Your task to perform on an android device: Open Google Chrome and click the shortcut for Amazon.com Image 0: 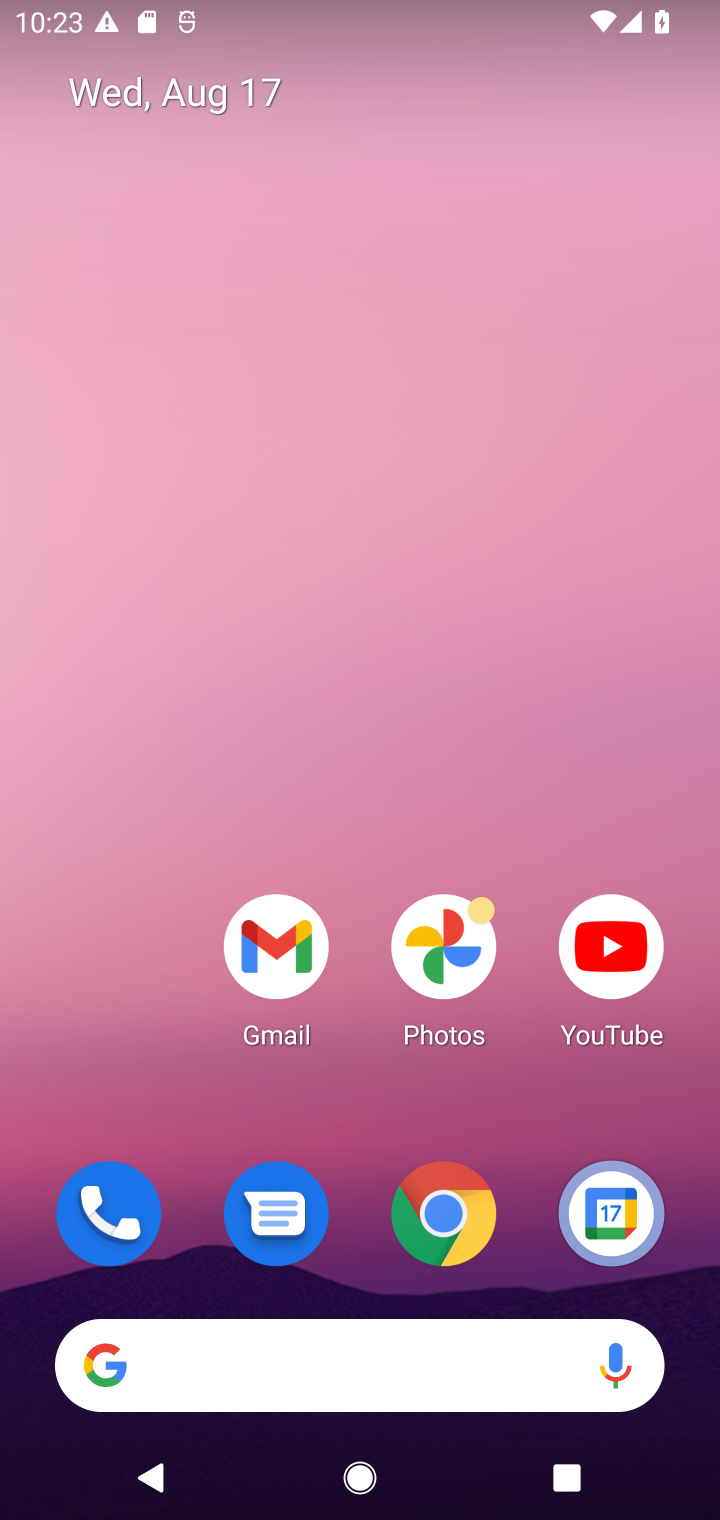
Step 0: drag from (521, 637) to (403, 22)
Your task to perform on an android device: Open Google Chrome and click the shortcut for Amazon.com Image 1: 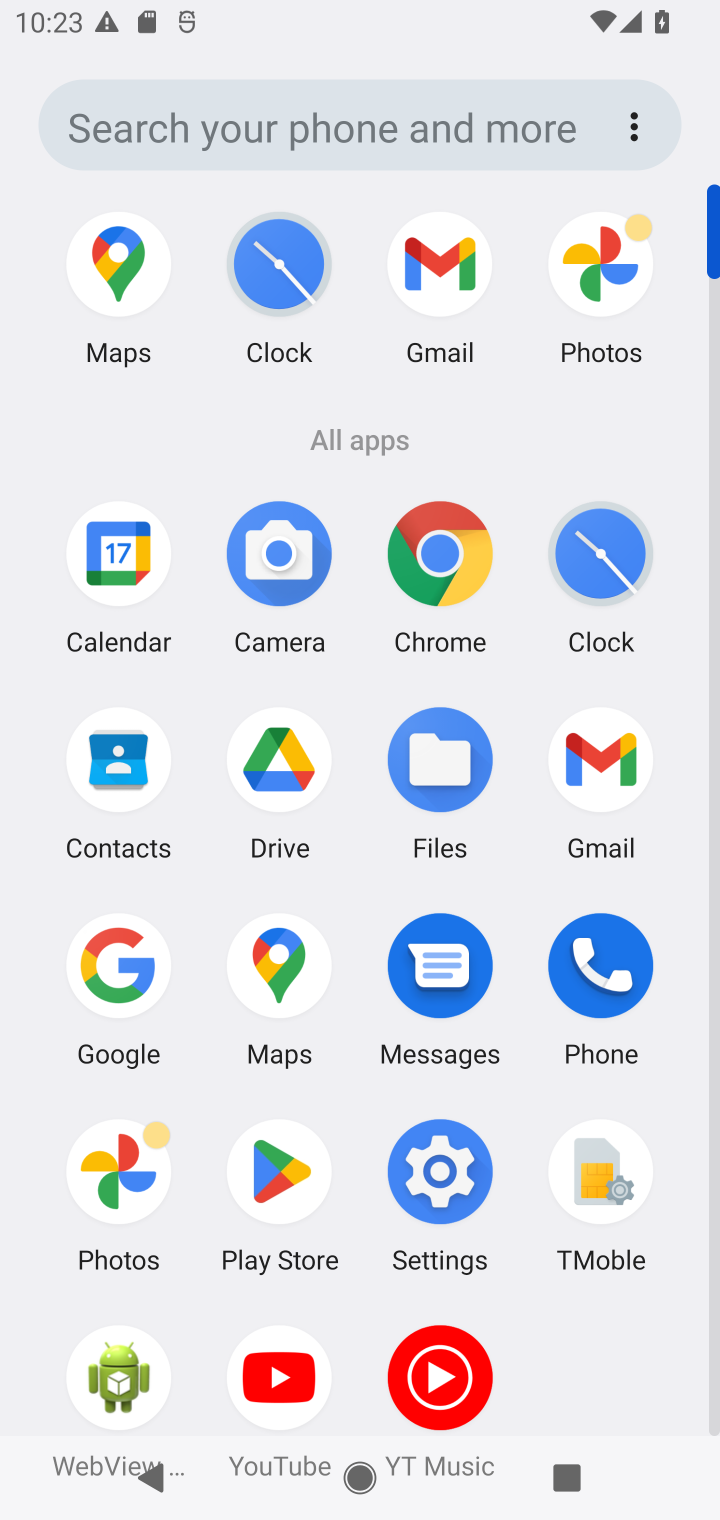
Step 1: click (402, 567)
Your task to perform on an android device: Open Google Chrome and click the shortcut for Amazon.com Image 2: 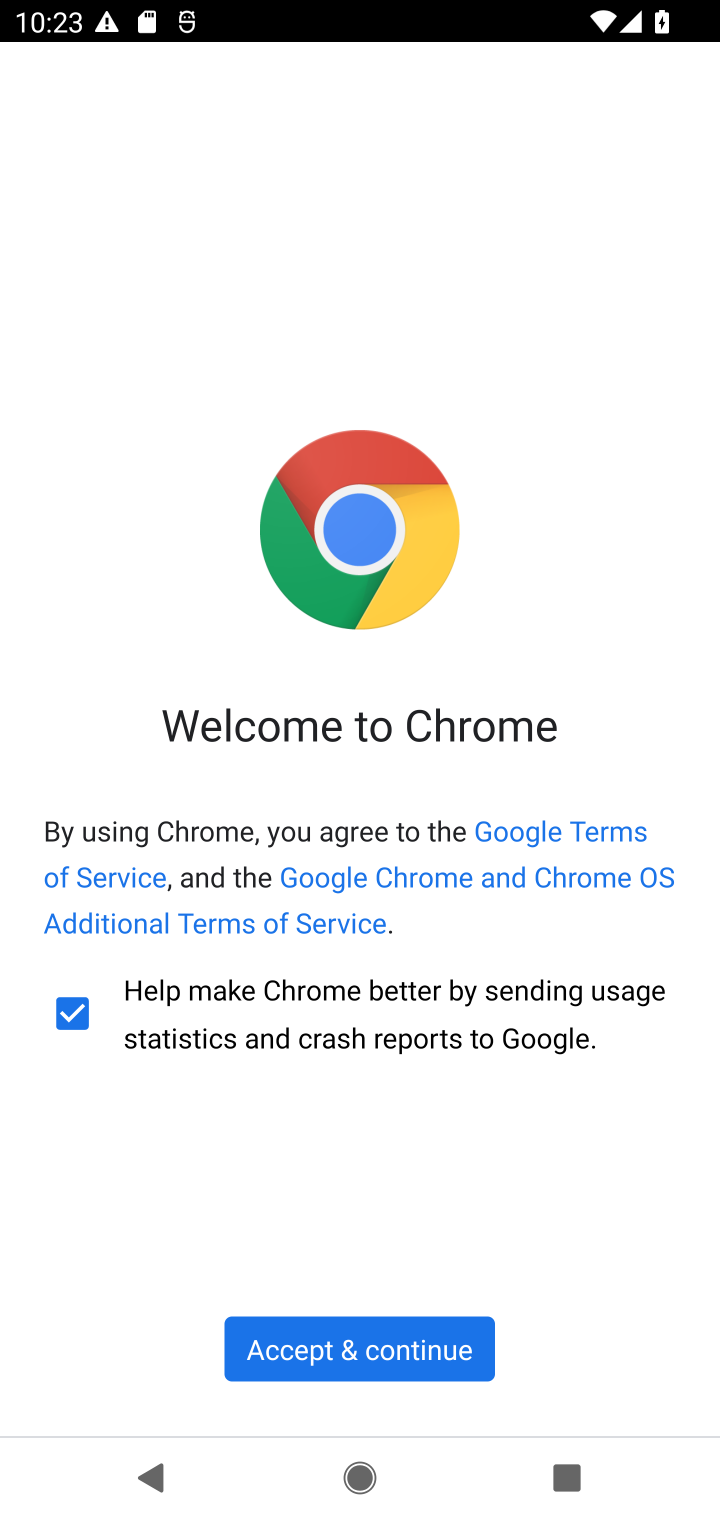
Step 2: click (328, 1353)
Your task to perform on an android device: Open Google Chrome and click the shortcut for Amazon.com Image 3: 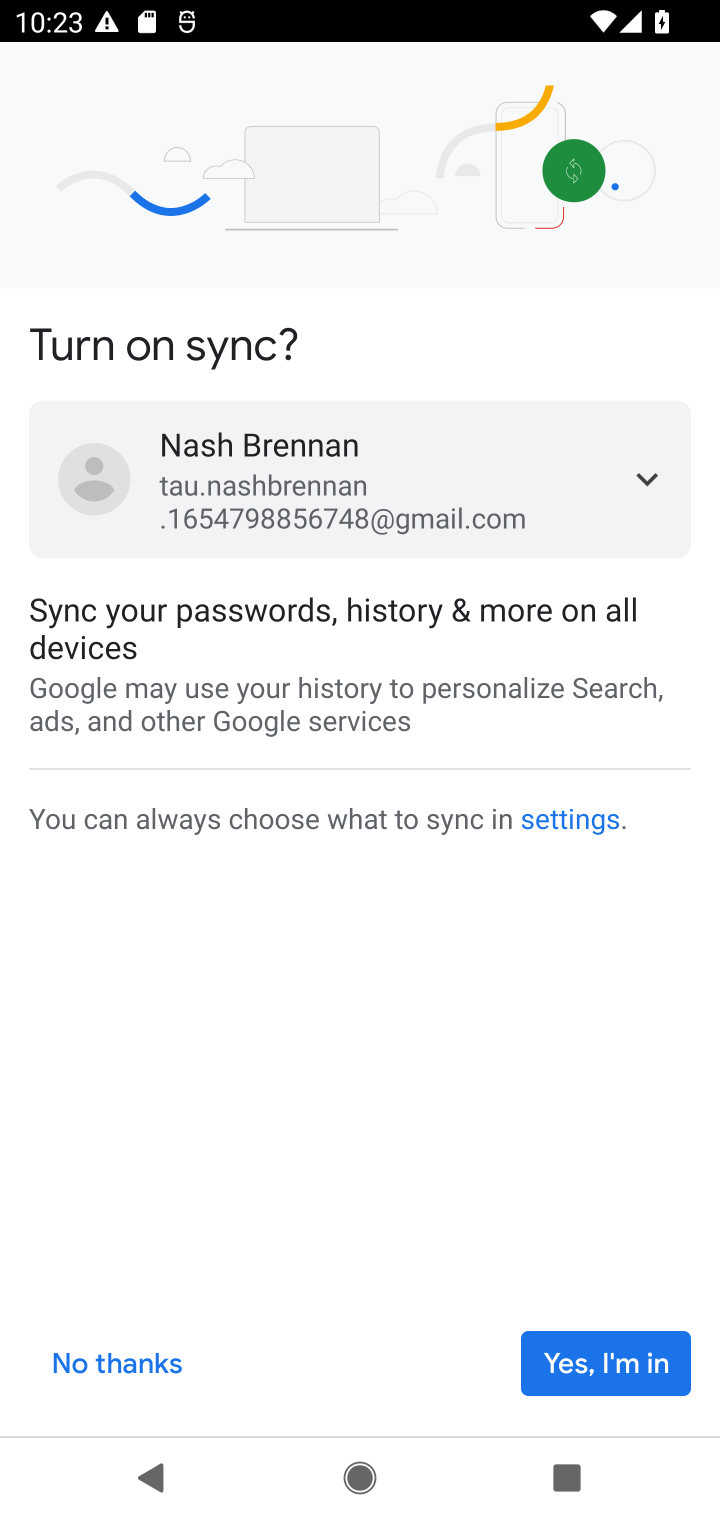
Step 3: click (644, 1378)
Your task to perform on an android device: Open Google Chrome and click the shortcut for Amazon.com Image 4: 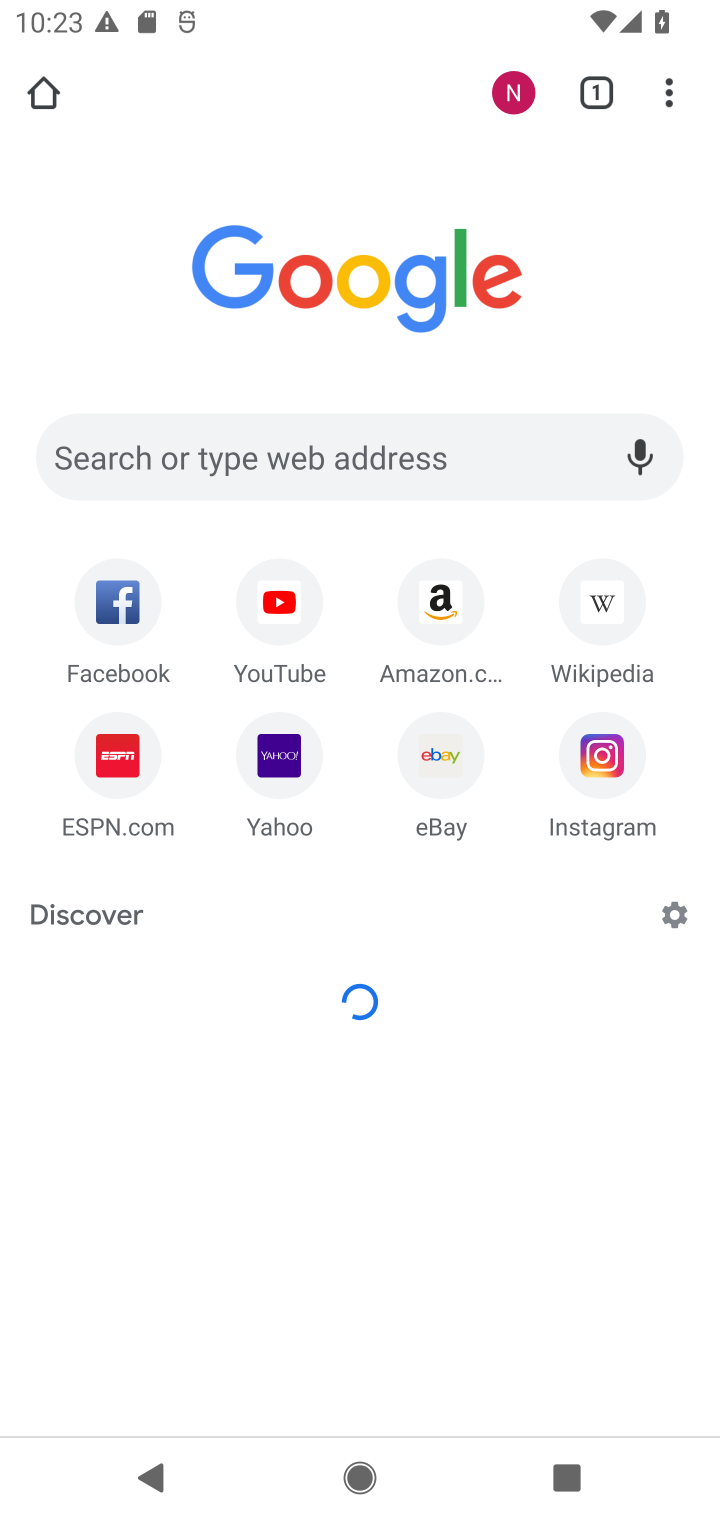
Step 4: click (664, 79)
Your task to perform on an android device: Open Google Chrome and click the shortcut for Amazon.com Image 5: 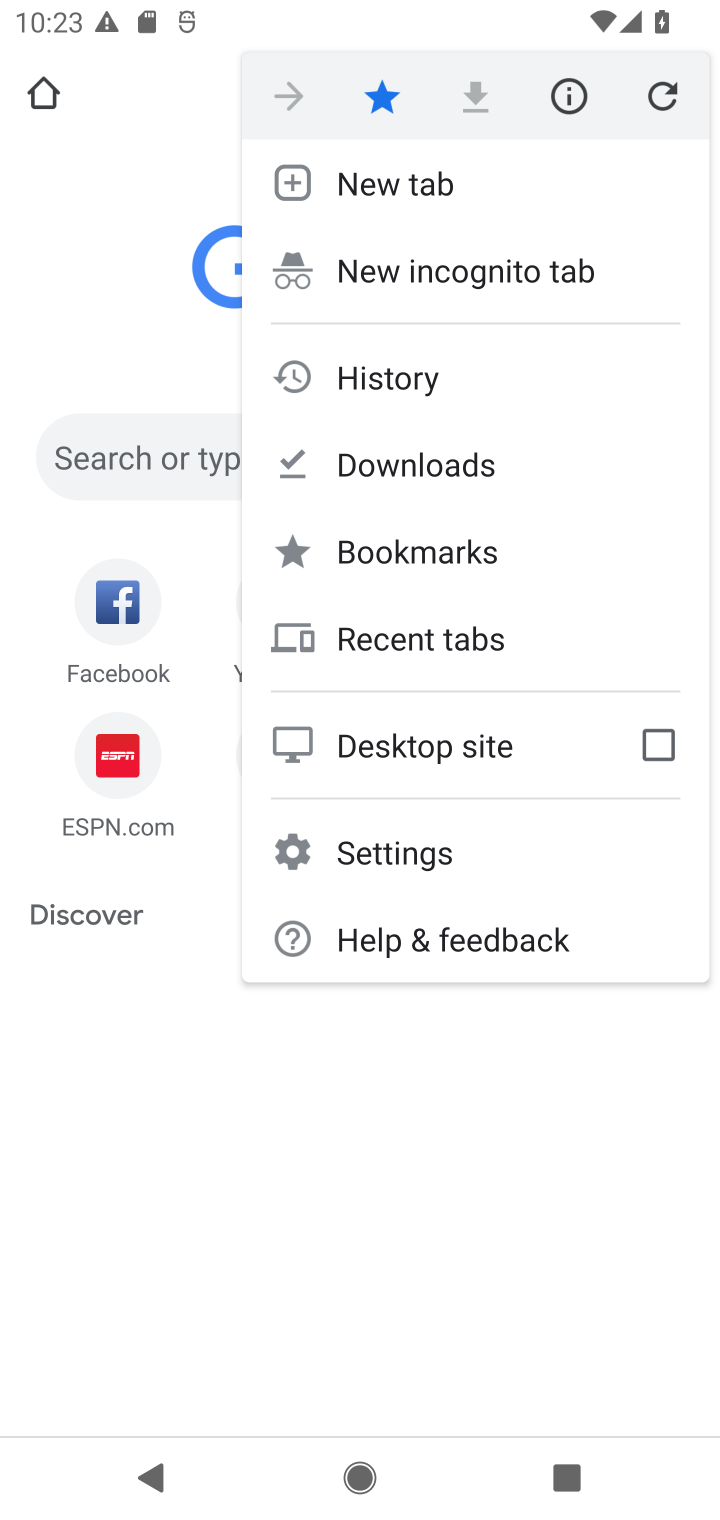
Step 5: click (134, 209)
Your task to perform on an android device: Open Google Chrome and click the shortcut for Amazon.com Image 6: 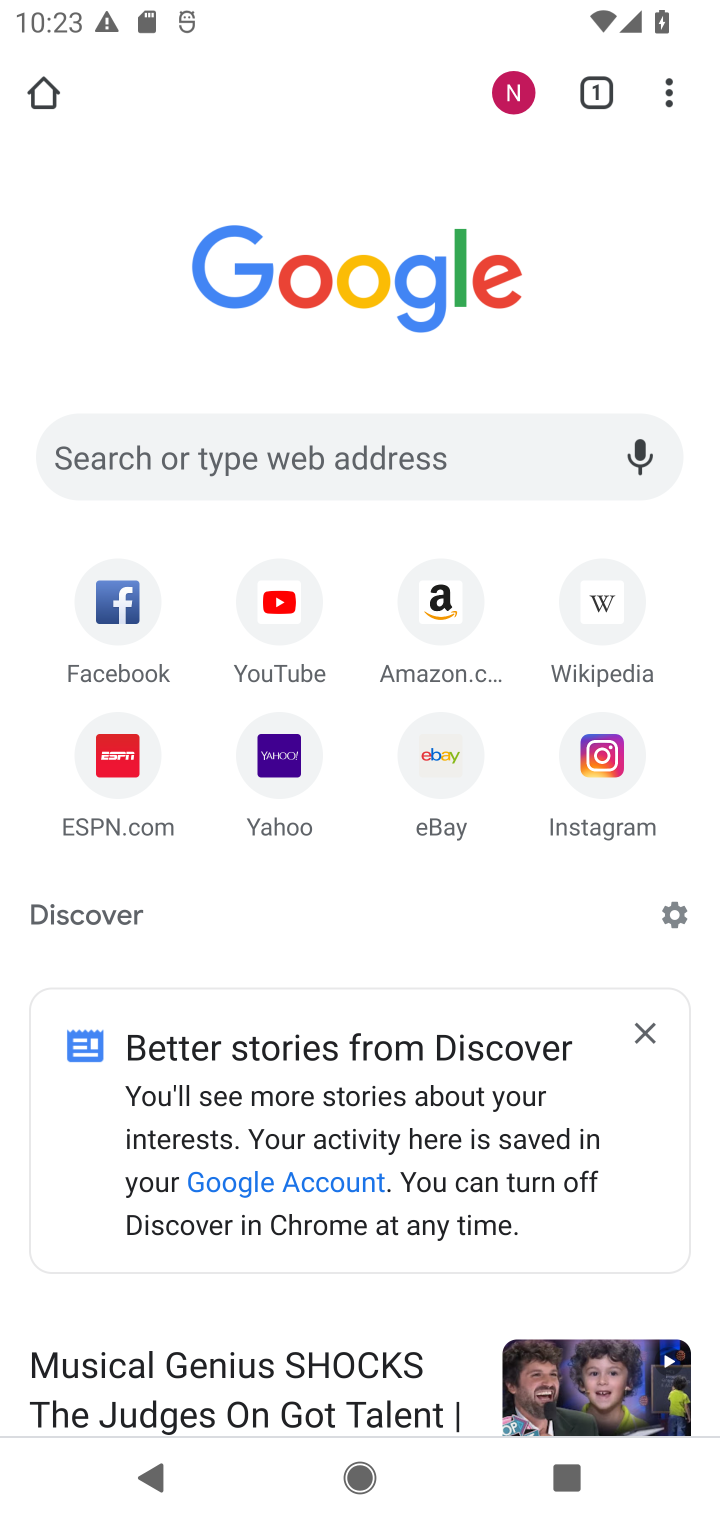
Step 6: click (434, 601)
Your task to perform on an android device: Open Google Chrome and click the shortcut for Amazon.com Image 7: 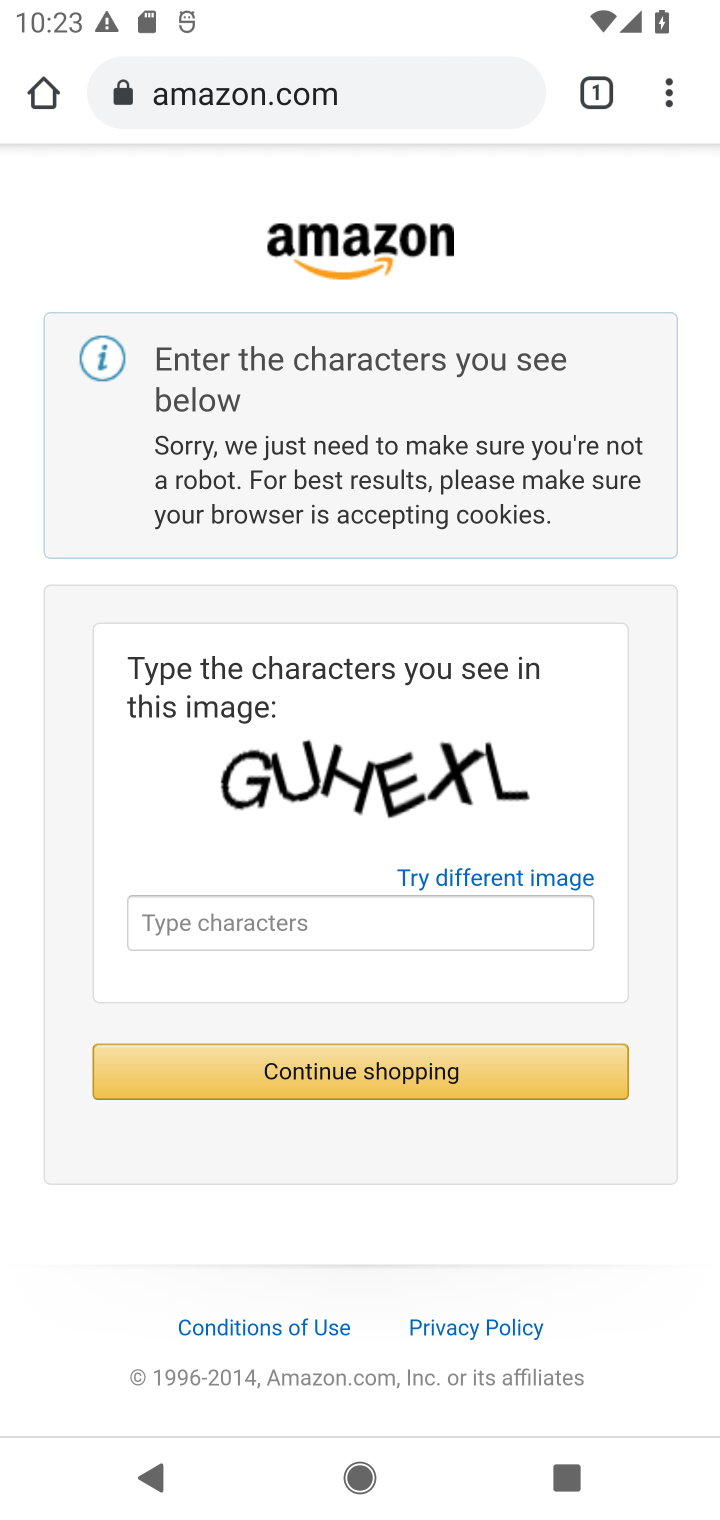
Step 7: task complete